Your task to perform on an android device: change the clock display to digital Image 0: 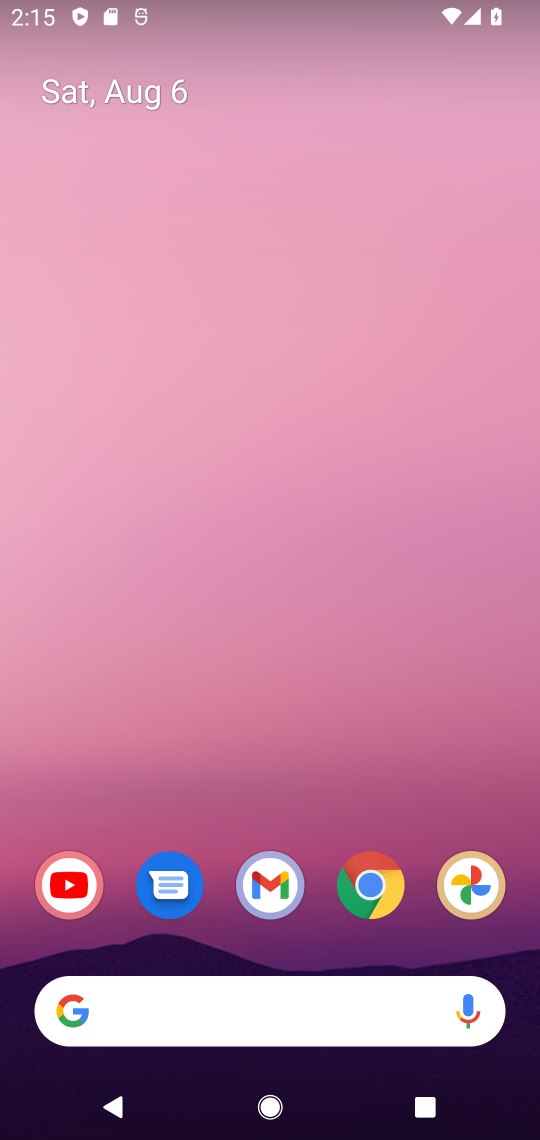
Step 0: drag from (404, 913) to (287, 32)
Your task to perform on an android device: change the clock display to digital Image 1: 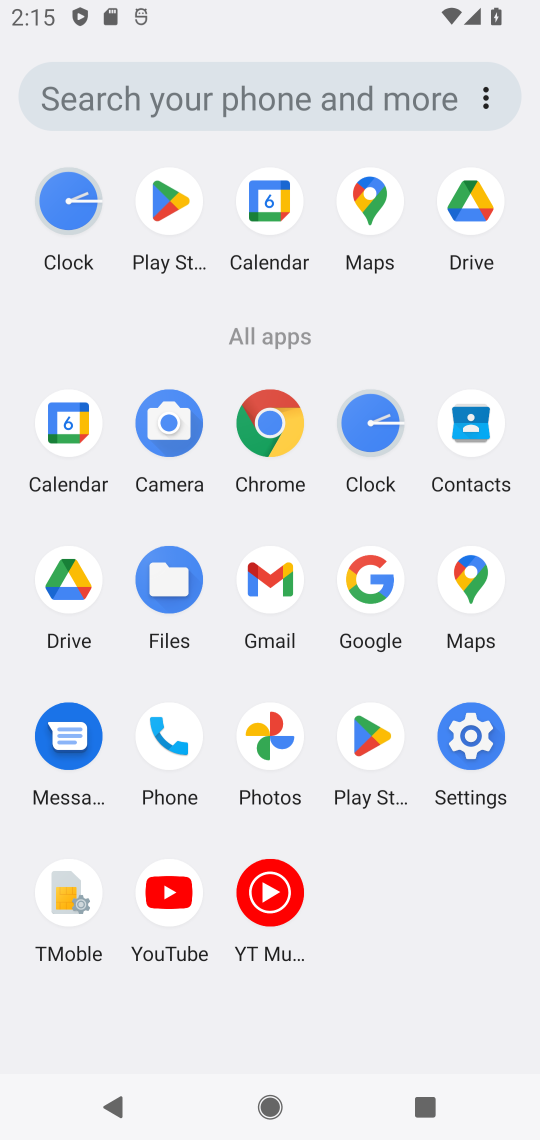
Step 1: click (382, 431)
Your task to perform on an android device: change the clock display to digital Image 2: 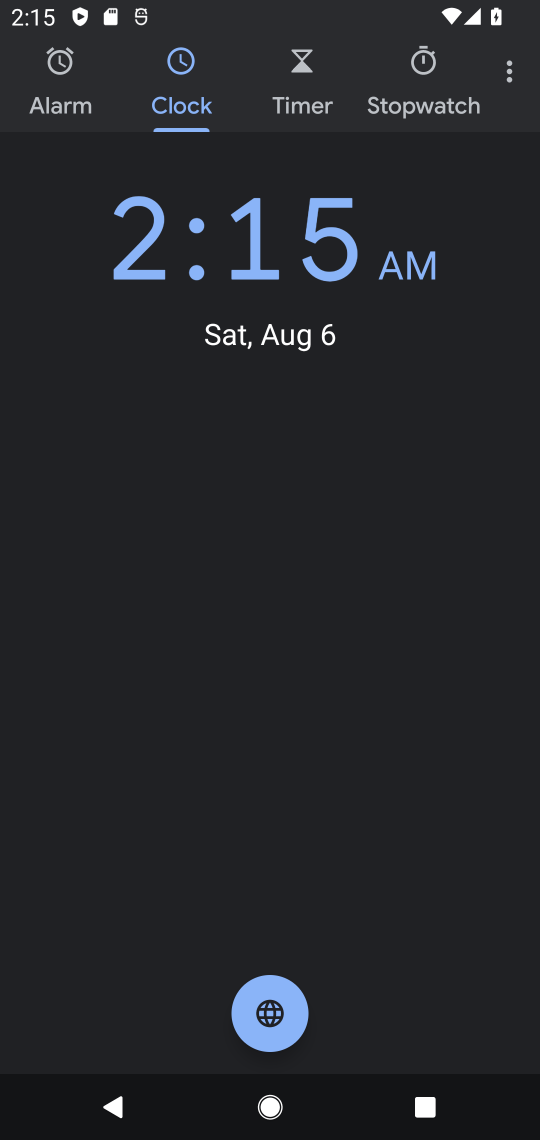
Step 2: click (506, 72)
Your task to perform on an android device: change the clock display to digital Image 3: 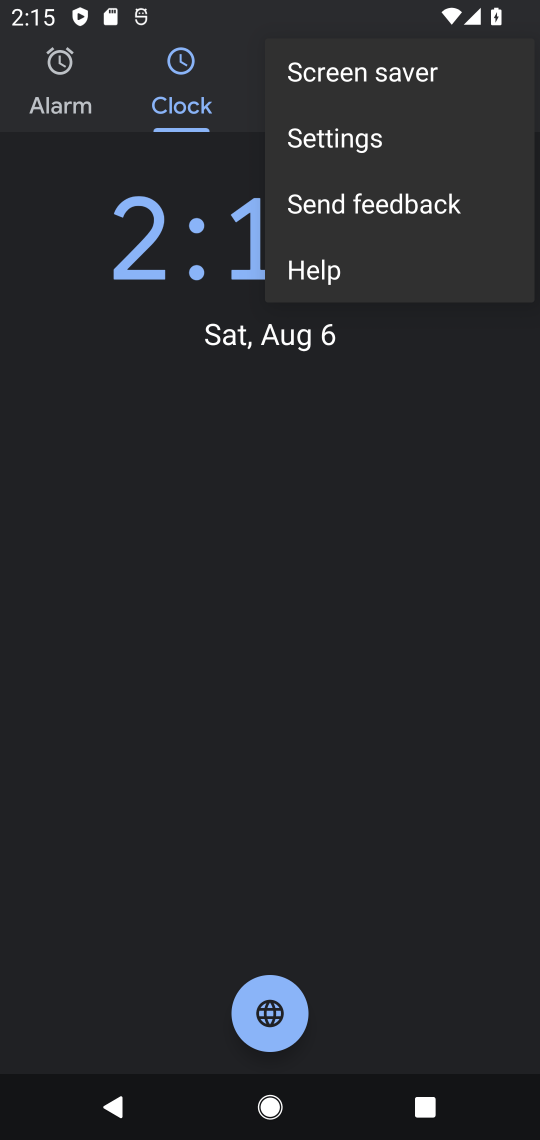
Step 3: click (330, 140)
Your task to perform on an android device: change the clock display to digital Image 4: 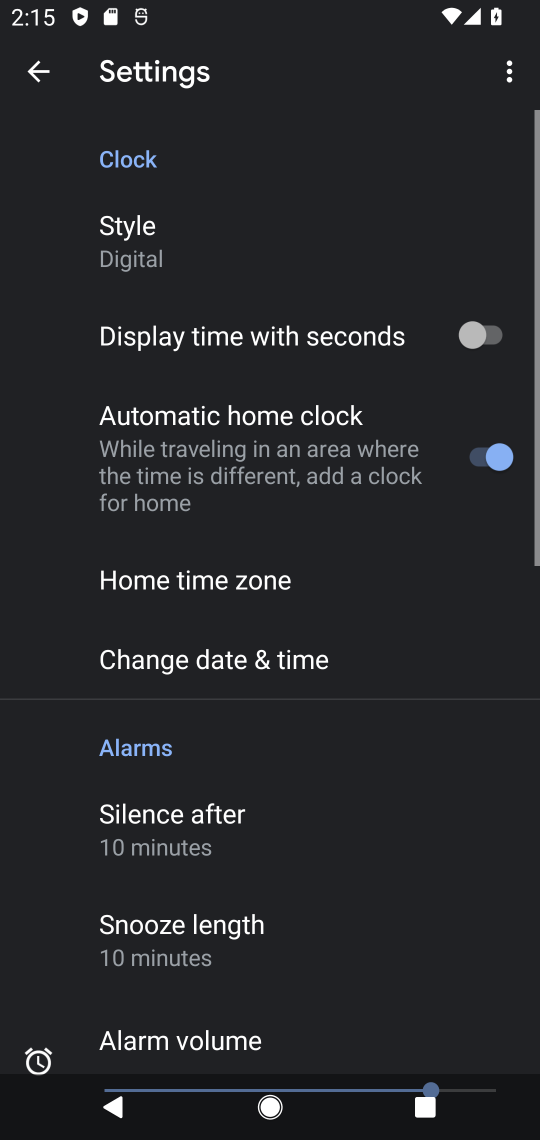
Step 4: click (143, 258)
Your task to perform on an android device: change the clock display to digital Image 5: 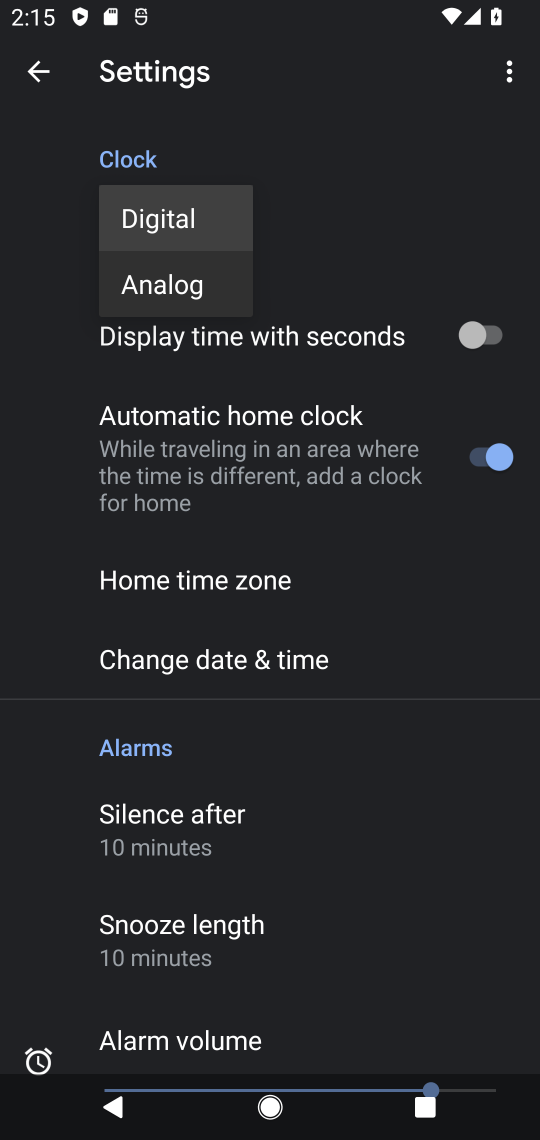
Step 5: click (147, 290)
Your task to perform on an android device: change the clock display to digital Image 6: 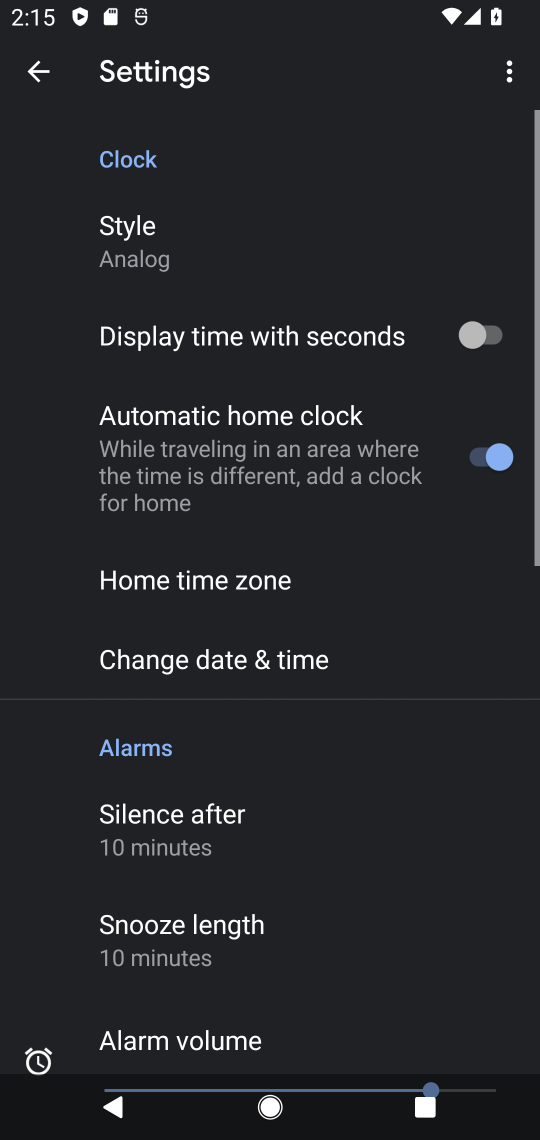
Step 6: task complete